Your task to perform on an android device: Open Google Chrome and open the bookmarks view Image 0: 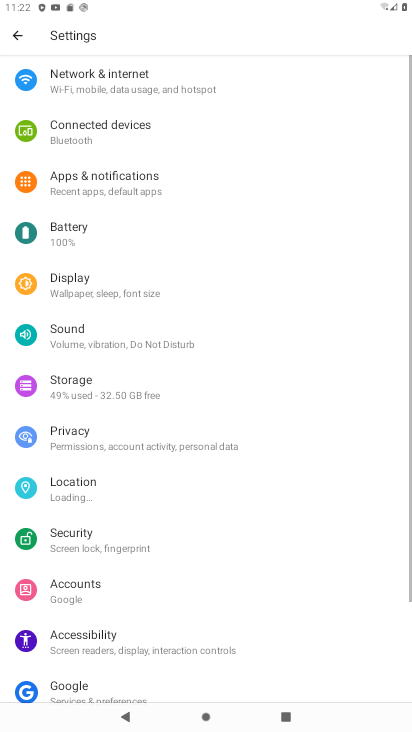
Step 0: press home button
Your task to perform on an android device: Open Google Chrome and open the bookmarks view Image 1: 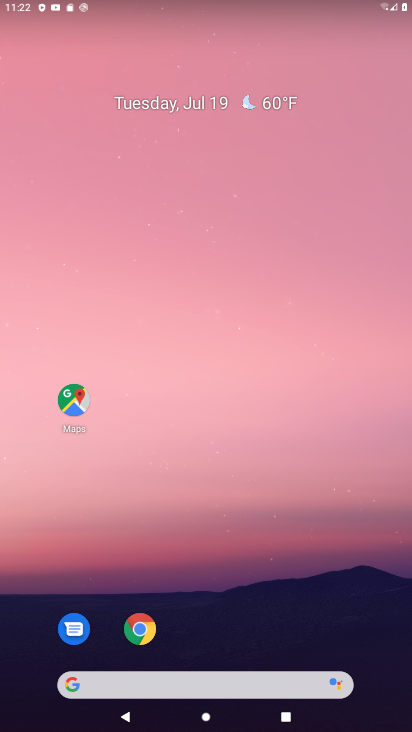
Step 1: click (140, 633)
Your task to perform on an android device: Open Google Chrome and open the bookmarks view Image 2: 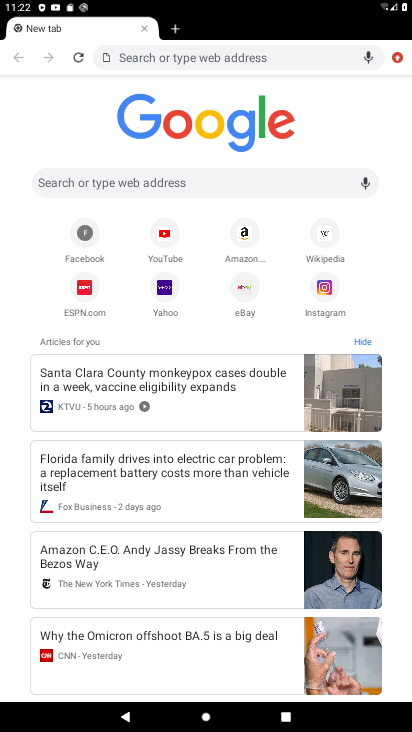
Step 2: click (396, 53)
Your task to perform on an android device: Open Google Chrome and open the bookmarks view Image 3: 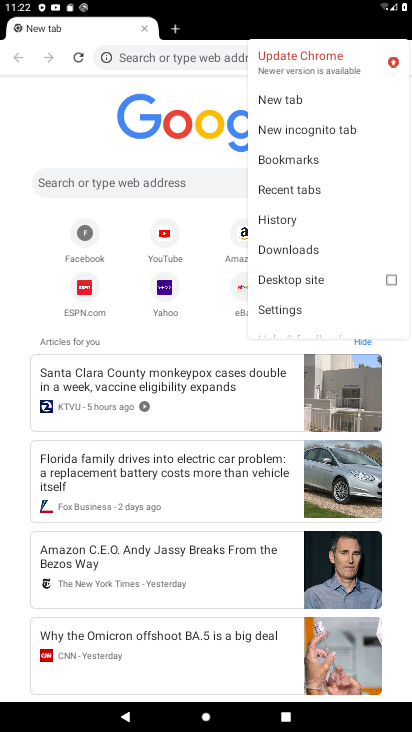
Step 3: click (283, 159)
Your task to perform on an android device: Open Google Chrome and open the bookmarks view Image 4: 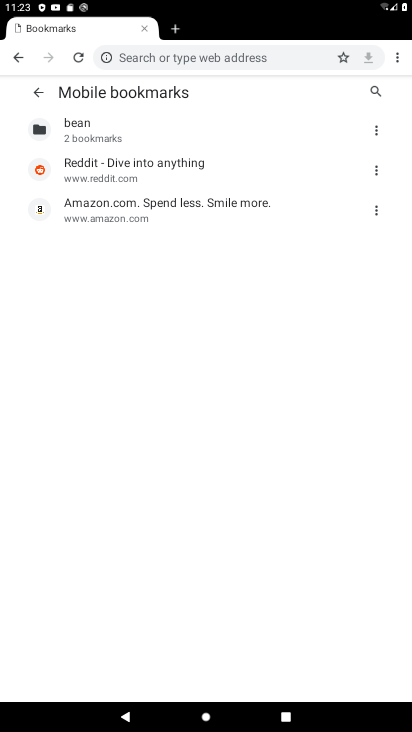
Step 4: task complete